Your task to perform on an android device: open app "Facebook Lite" (install if not already installed) Image 0: 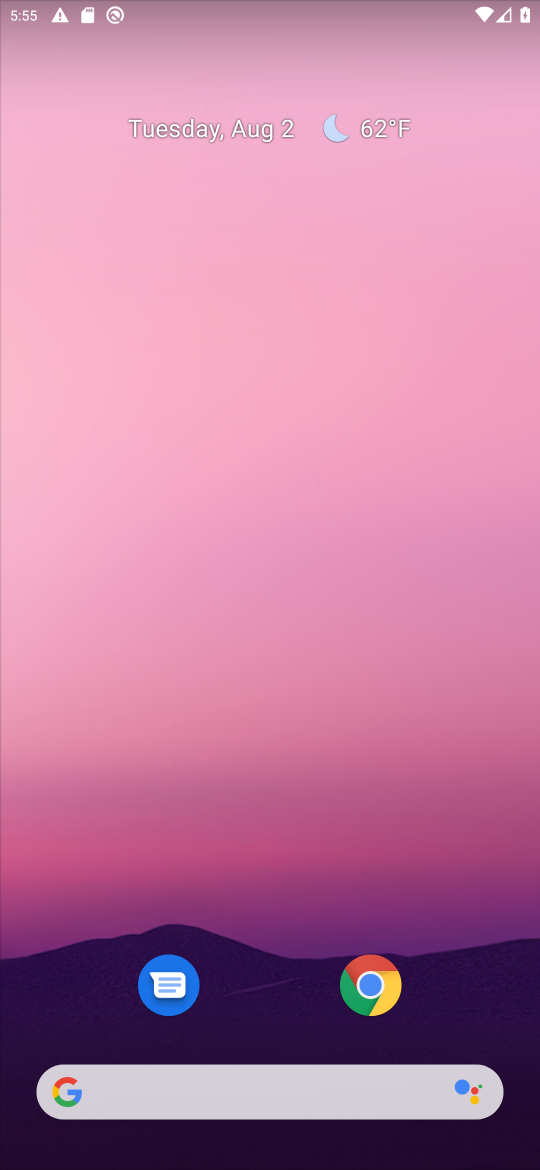
Step 0: drag from (233, 879) to (262, 236)
Your task to perform on an android device: open app "Facebook Lite" (install if not already installed) Image 1: 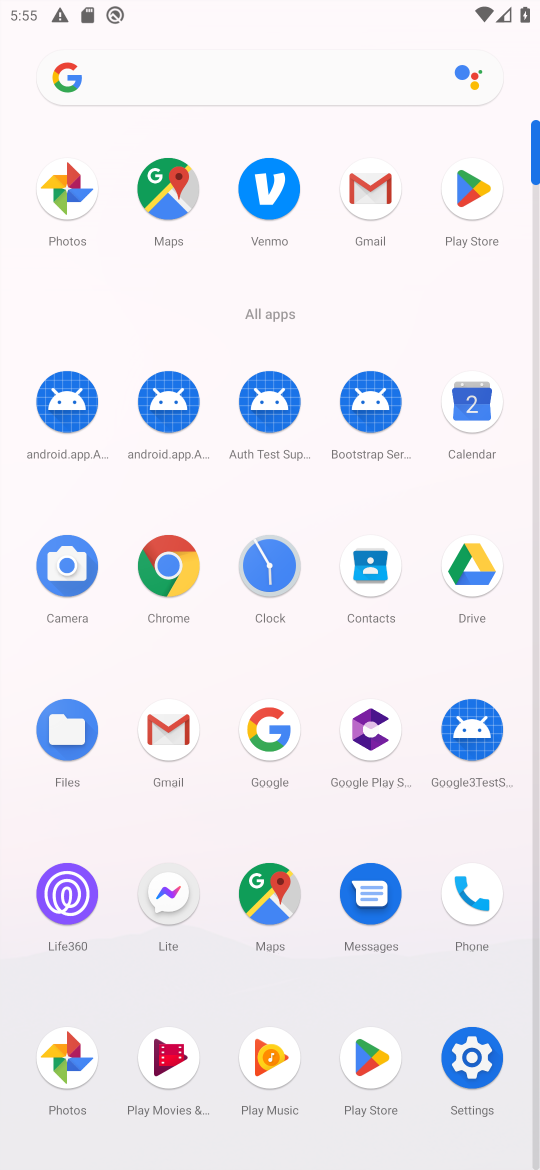
Step 1: click (437, 220)
Your task to perform on an android device: open app "Facebook Lite" (install if not already installed) Image 2: 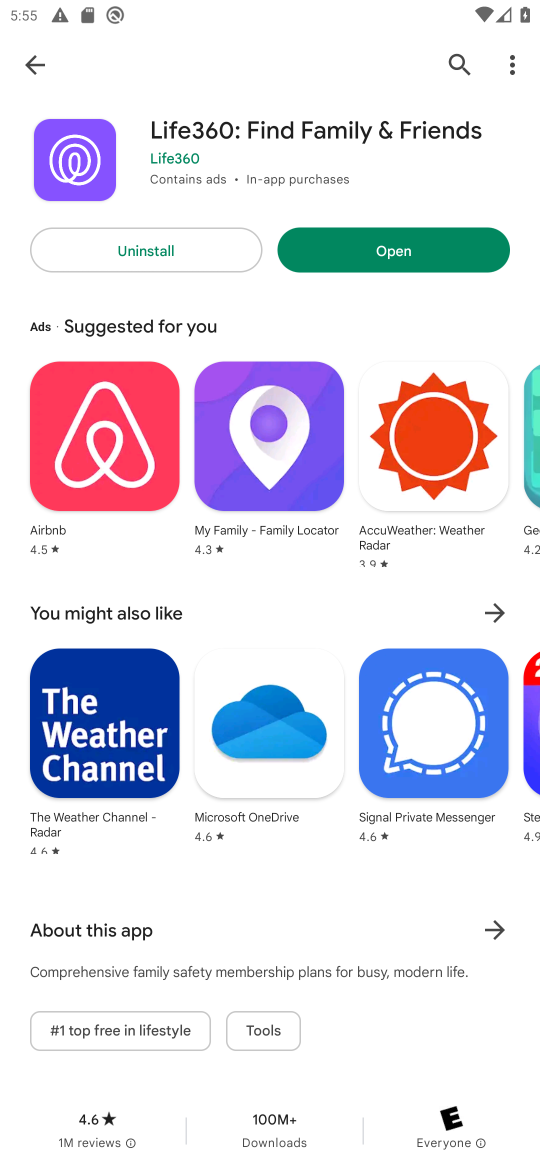
Step 2: click (445, 65)
Your task to perform on an android device: open app "Facebook Lite" (install if not already installed) Image 3: 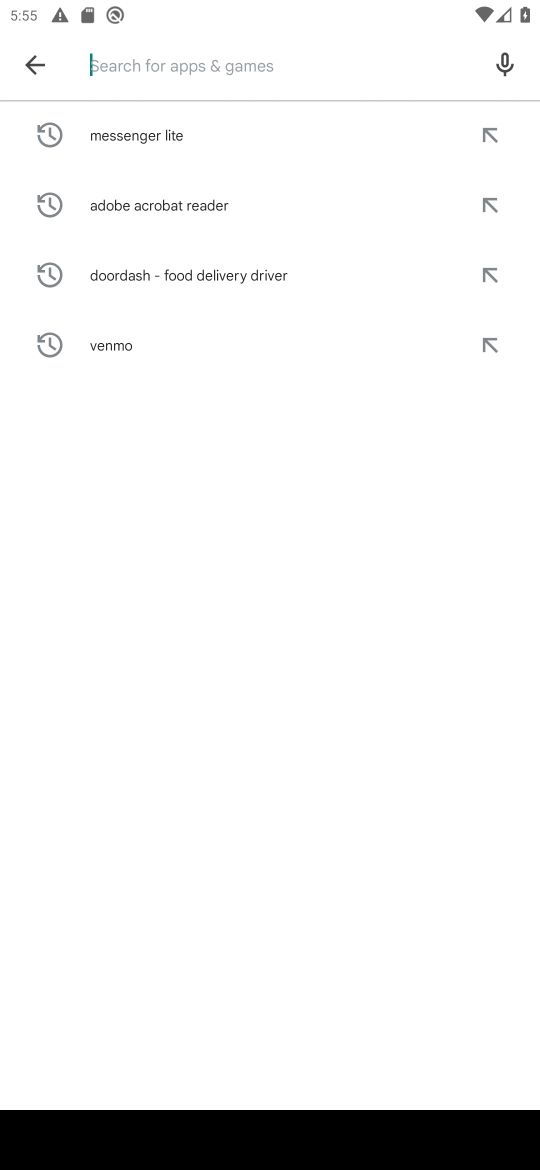
Step 3: type "Facebook Lite"
Your task to perform on an android device: open app "Facebook Lite" (install if not already installed) Image 4: 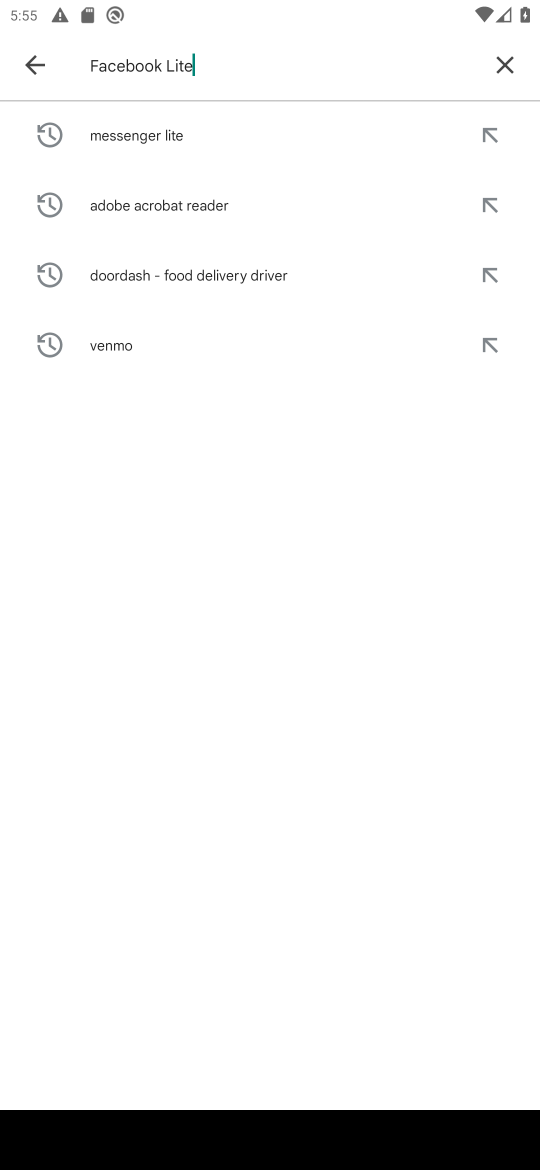
Step 4: type ""
Your task to perform on an android device: open app "Facebook Lite" (install if not already installed) Image 5: 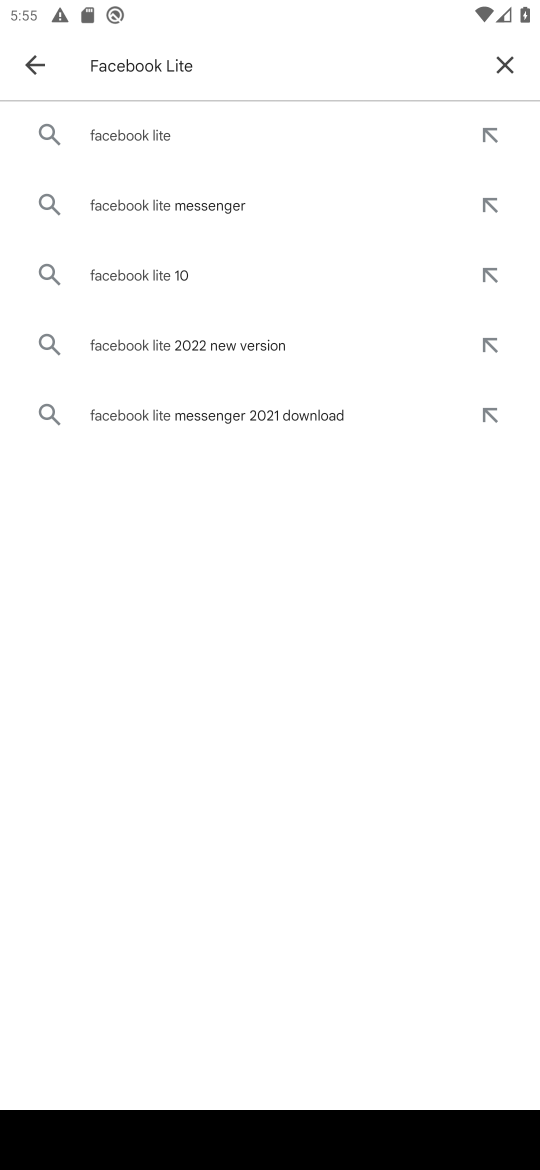
Step 5: click (171, 135)
Your task to perform on an android device: open app "Facebook Lite" (install if not already installed) Image 6: 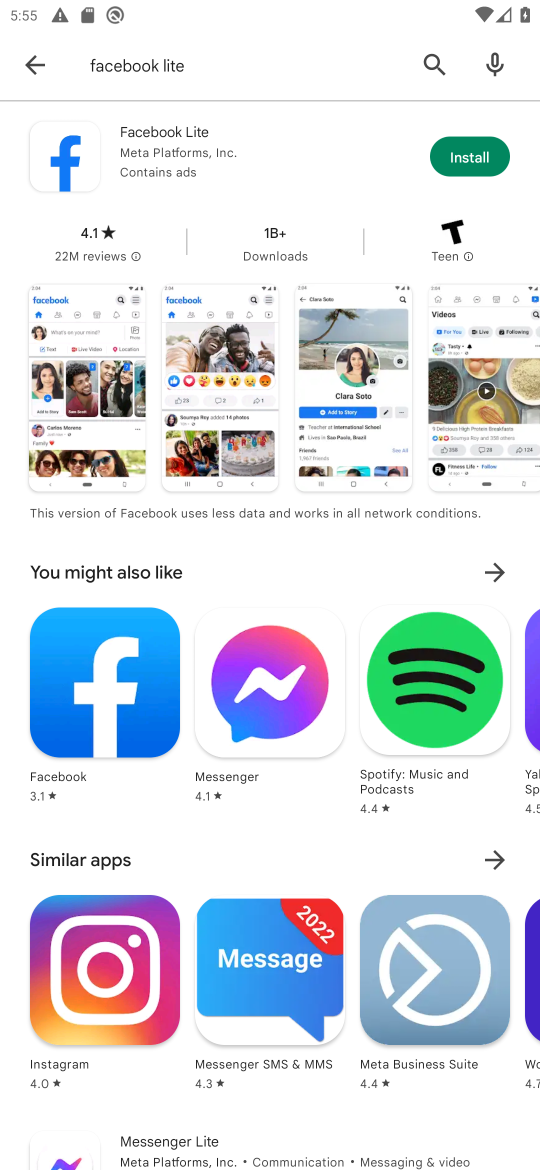
Step 6: click (468, 153)
Your task to perform on an android device: open app "Facebook Lite" (install if not already installed) Image 7: 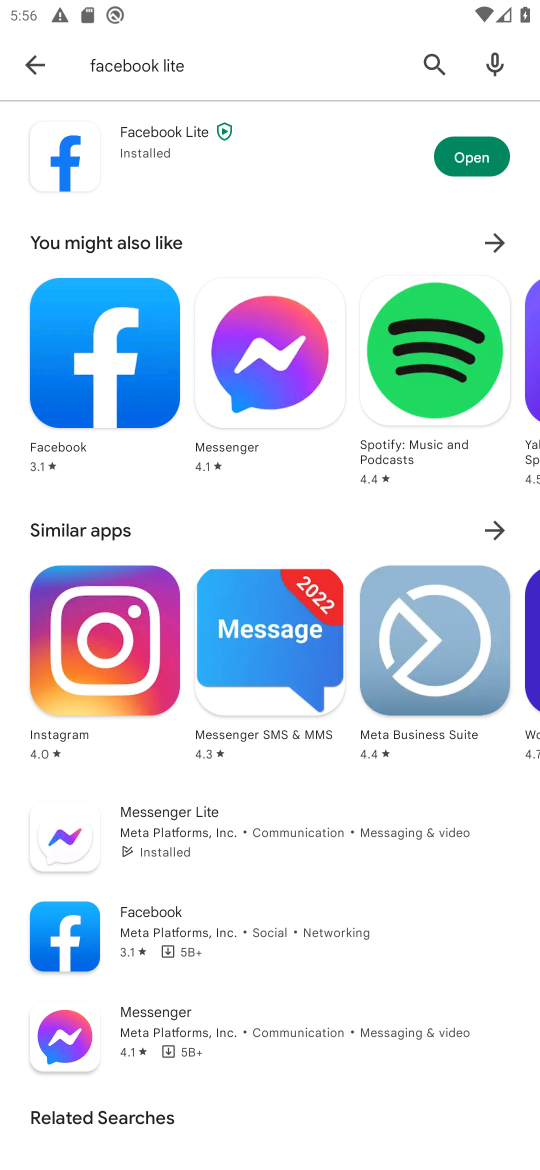
Step 7: click (500, 161)
Your task to perform on an android device: open app "Facebook Lite" (install if not already installed) Image 8: 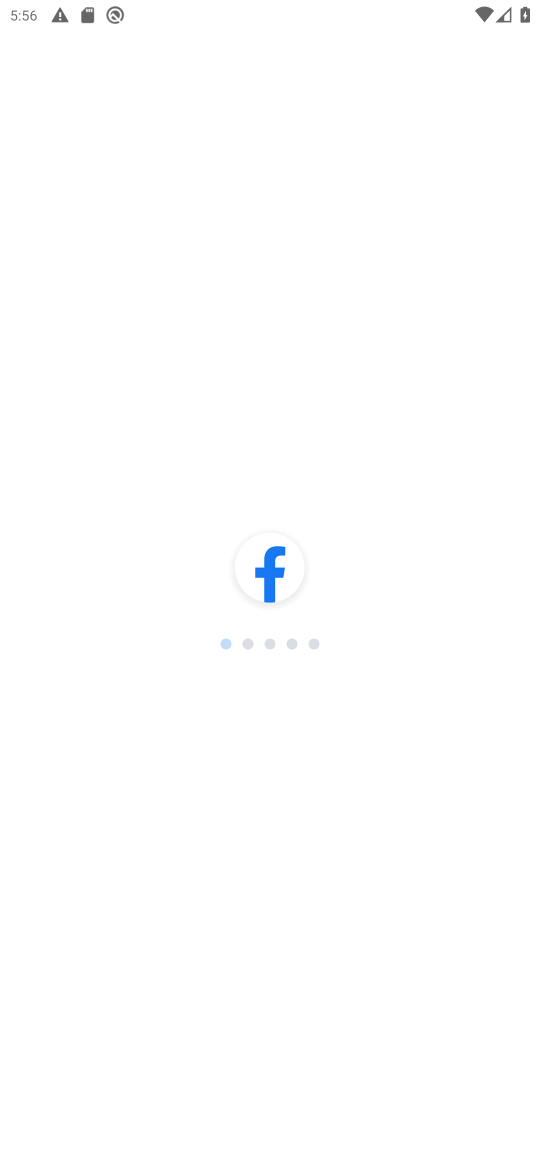
Step 8: task complete